Your task to perform on an android device: Open eBay Image 0: 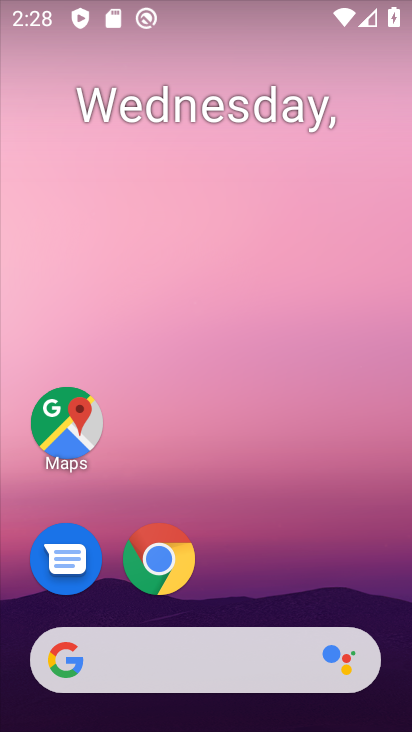
Step 0: click (157, 559)
Your task to perform on an android device: Open eBay Image 1: 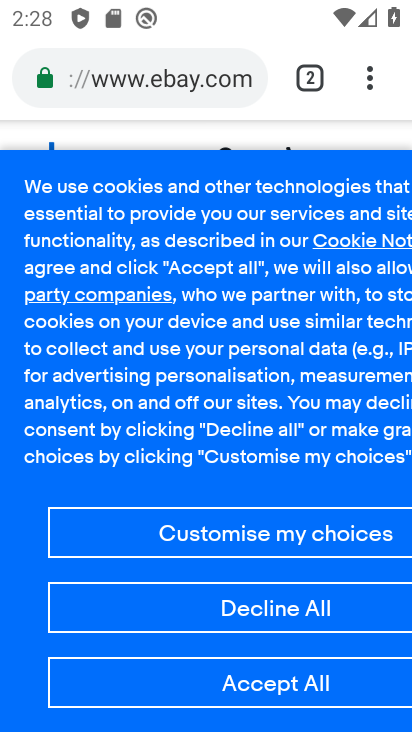
Step 1: click (321, 73)
Your task to perform on an android device: Open eBay Image 2: 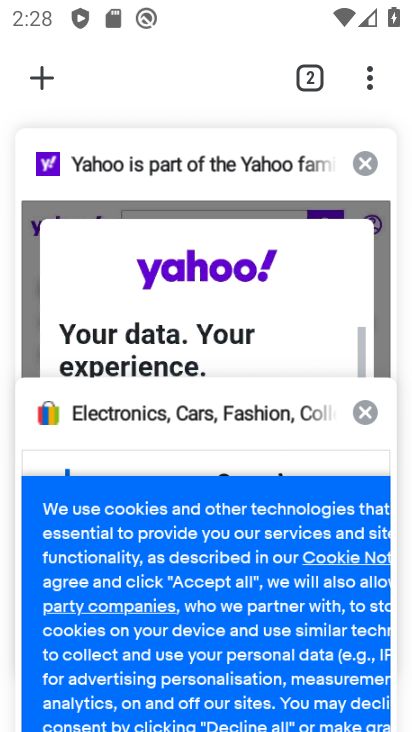
Step 2: click (129, 579)
Your task to perform on an android device: Open eBay Image 3: 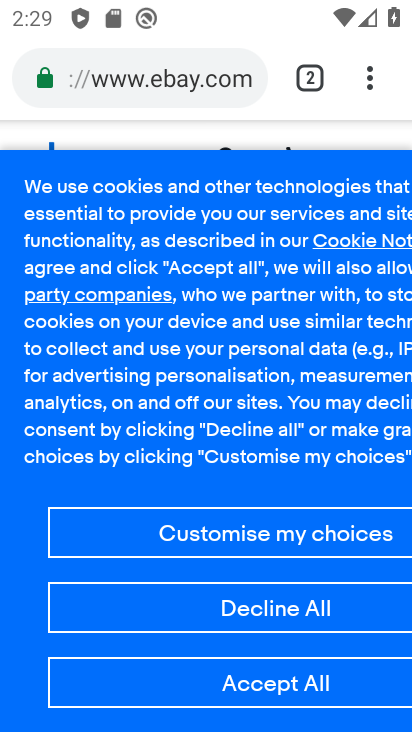
Step 3: task complete